Your task to perform on an android device: toggle pop-ups in chrome Image 0: 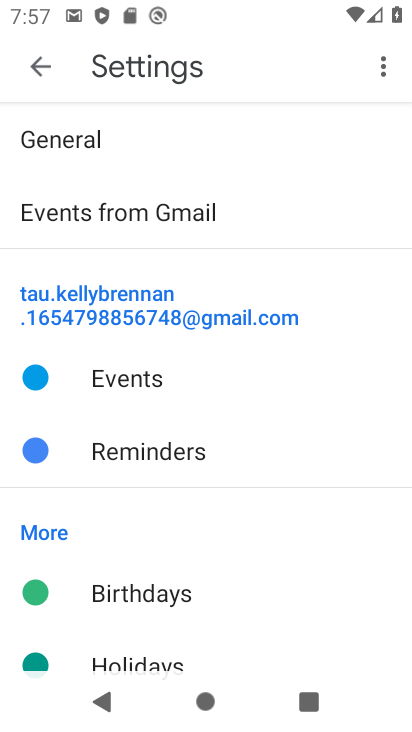
Step 0: press home button
Your task to perform on an android device: toggle pop-ups in chrome Image 1: 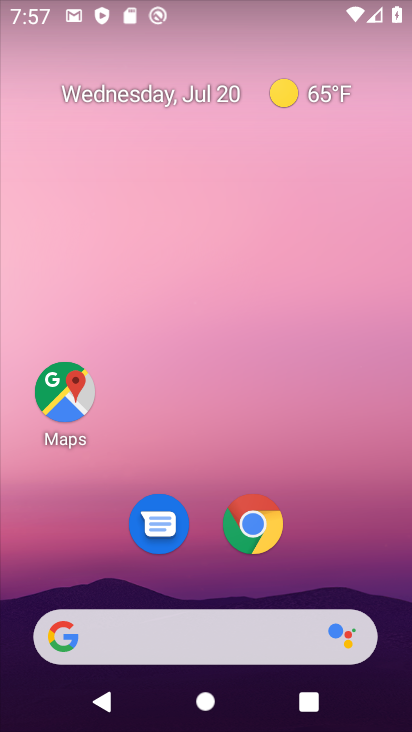
Step 1: click (259, 527)
Your task to perform on an android device: toggle pop-ups in chrome Image 2: 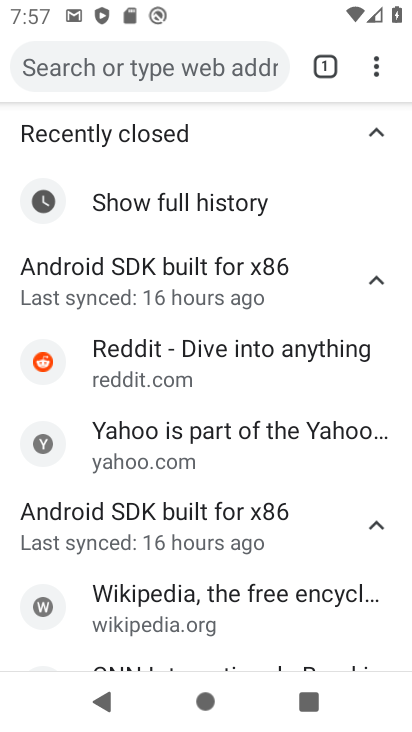
Step 2: press back button
Your task to perform on an android device: toggle pop-ups in chrome Image 3: 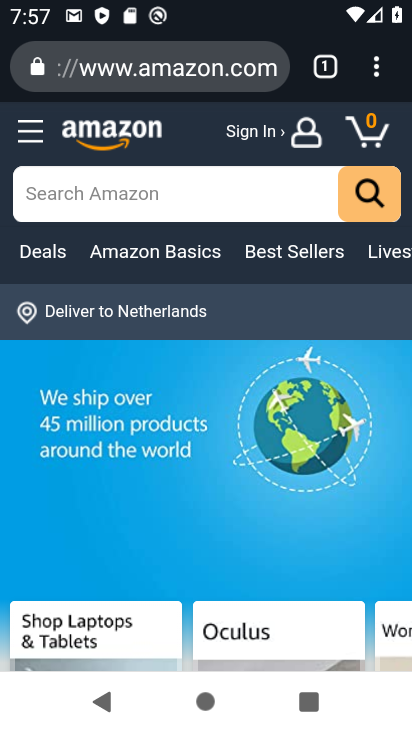
Step 3: press home button
Your task to perform on an android device: toggle pop-ups in chrome Image 4: 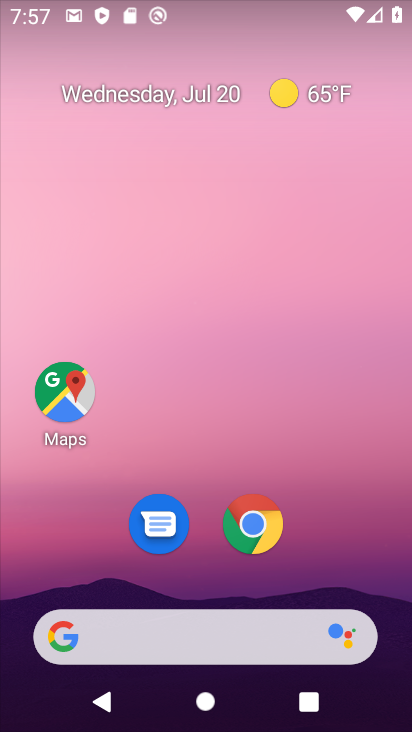
Step 4: click (259, 523)
Your task to perform on an android device: toggle pop-ups in chrome Image 5: 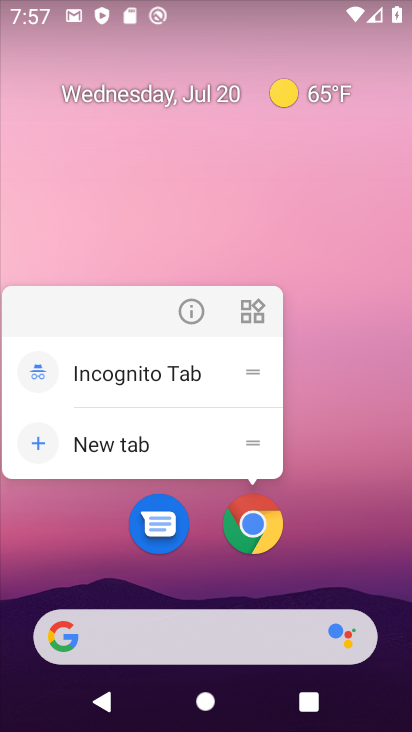
Step 5: click (191, 309)
Your task to perform on an android device: toggle pop-ups in chrome Image 6: 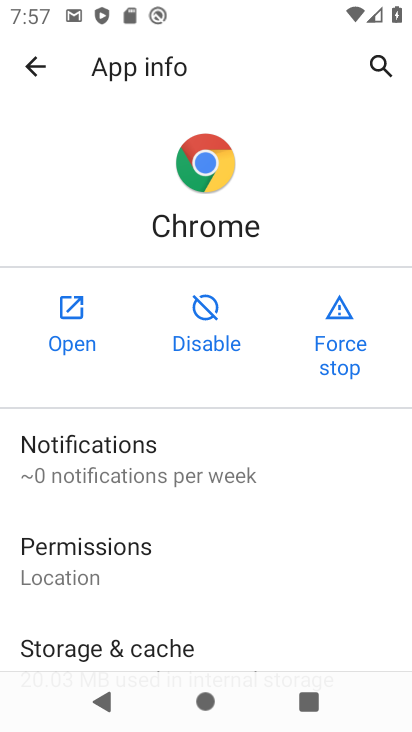
Step 6: drag from (242, 573) to (252, 12)
Your task to perform on an android device: toggle pop-ups in chrome Image 7: 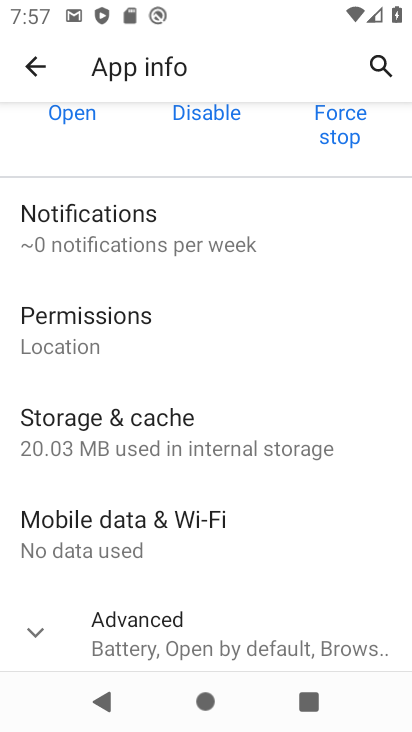
Step 7: click (28, 626)
Your task to perform on an android device: toggle pop-ups in chrome Image 8: 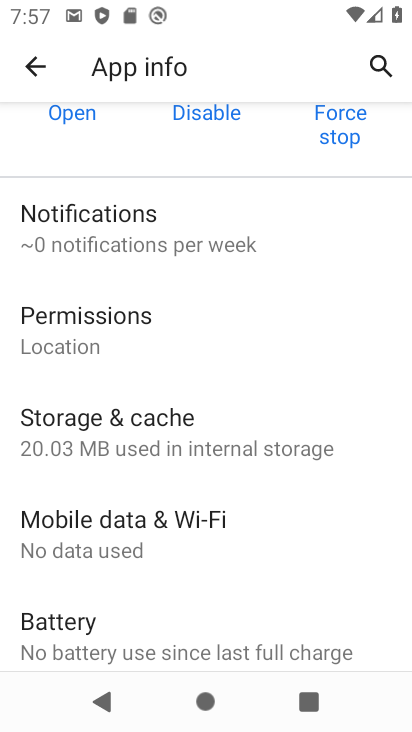
Step 8: click (28, 626)
Your task to perform on an android device: toggle pop-ups in chrome Image 9: 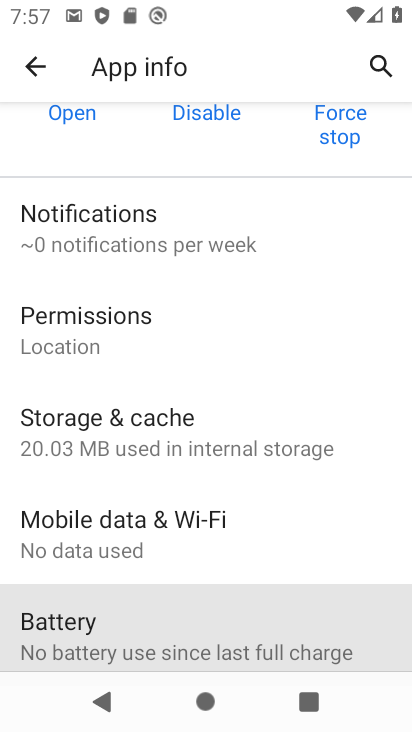
Step 9: drag from (28, 626) to (123, 199)
Your task to perform on an android device: toggle pop-ups in chrome Image 10: 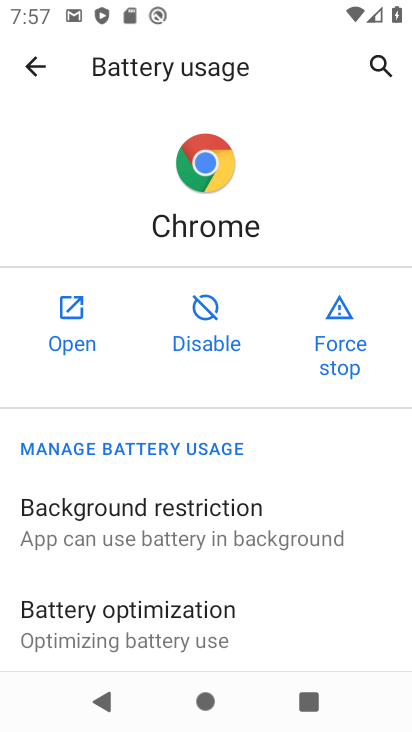
Step 10: click (35, 60)
Your task to perform on an android device: toggle pop-ups in chrome Image 11: 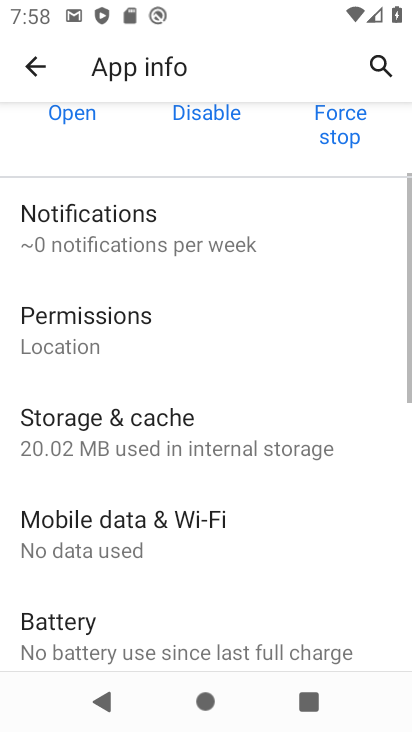
Step 11: drag from (160, 479) to (163, 44)
Your task to perform on an android device: toggle pop-ups in chrome Image 12: 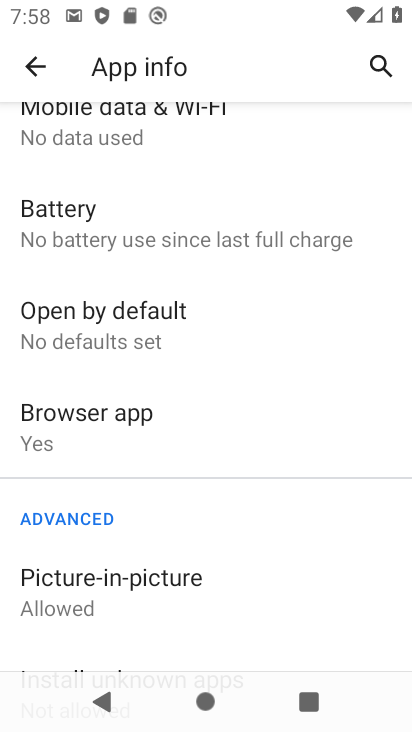
Step 12: click (115, 577)
Your task to perform on an android device: toggle pop-ups in chrome Image 13: 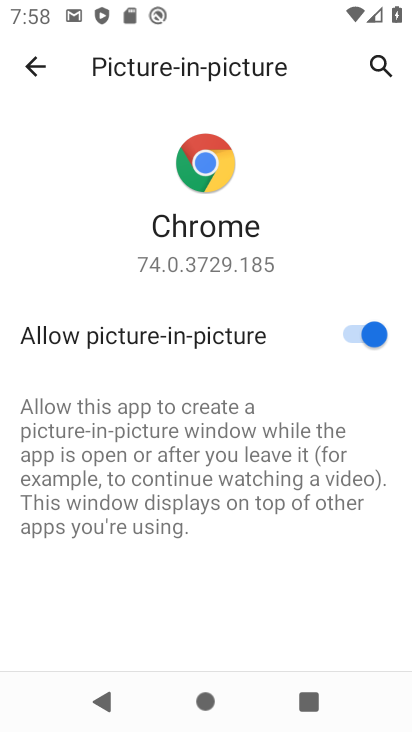
Step 13: click (359, 332)
Your task to perform on an android device: toggle pop-ups in chrome Image 14: 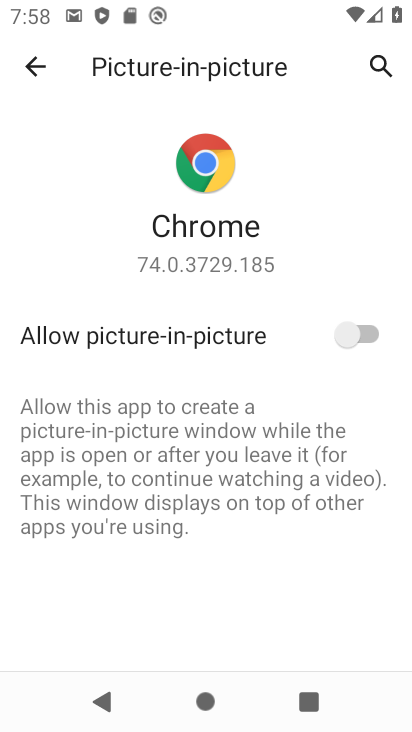
Step 14: task complete